Your task to perform on an android device: turn off location Image 0: 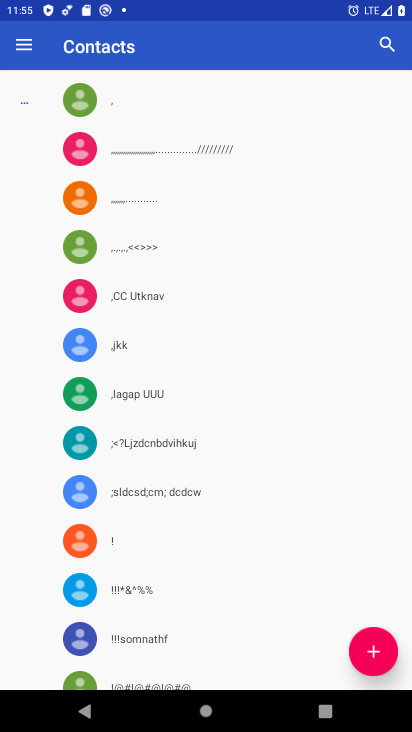
Step 0: press home button
Your task to perform on an android device: turn off location Image 1: 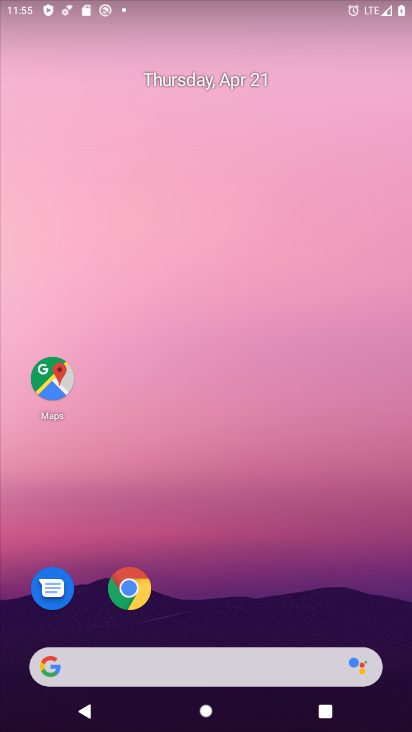
Step 1: drag from (262, 693) to (303, 224)
Your task to perform on an android device: turn off location Image 2: 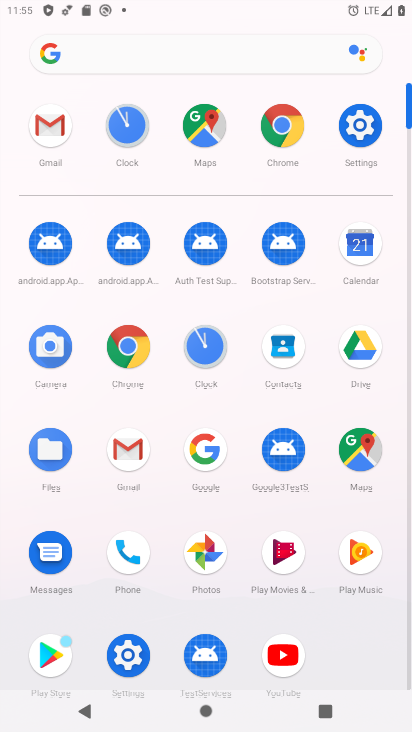
Step 2: click (356, 143)
Your task to perform on an android device: turn off location Image 3: 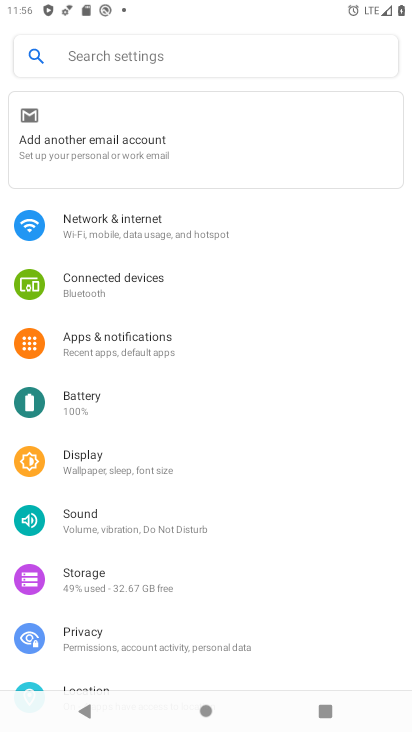
Step 3: click (97, 686)
Your task to perform on an android device: turn off location Image 4: 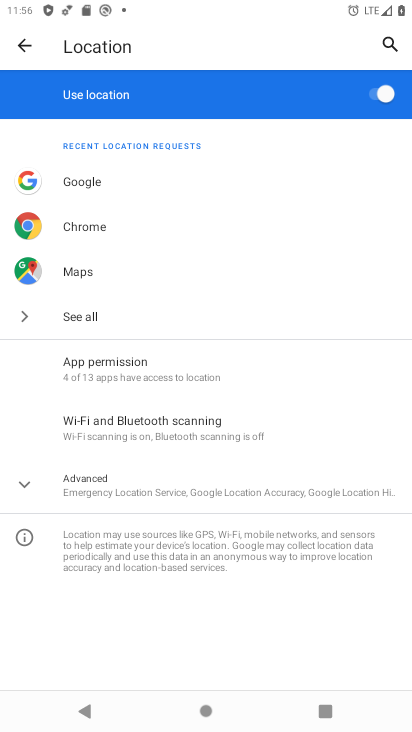
Step 4: click (29, 487)
Your task to perform on an android device: turn off location Image 5: 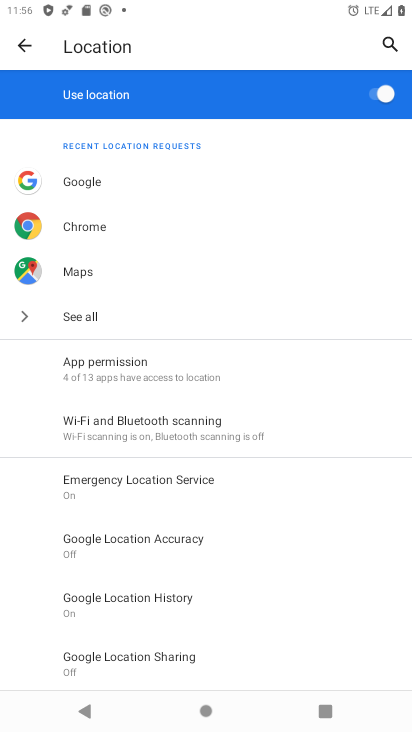
Step 5: click (380, 97)
Your task to perform on an android device: turn off location Image 6: 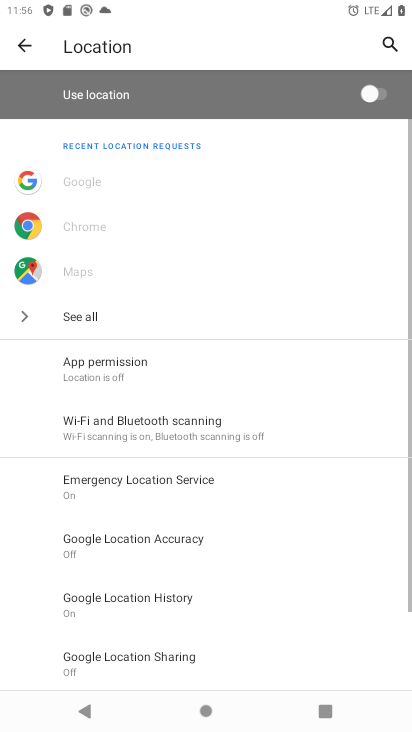
Step 6: task complete